Your task to perform on an android device: Open notification settings Image 0: 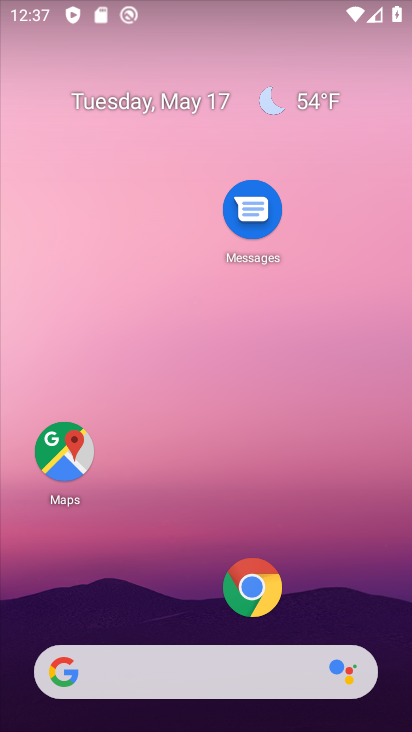
Step 0: drag from (172, 614) to (197, 88)
Your task to perform on an android device: Open notification settings Image 1: 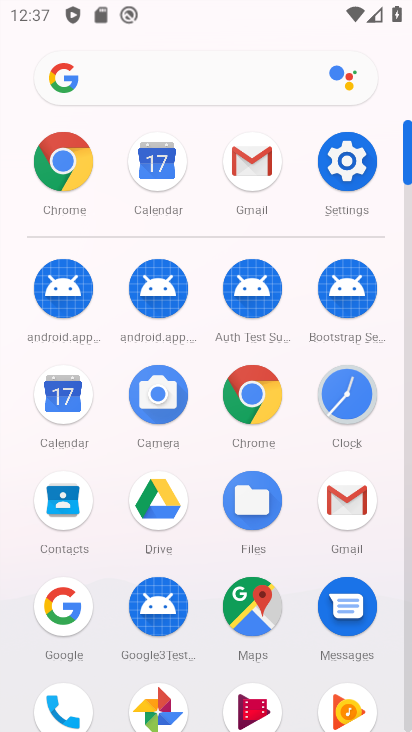
Step 1: click (338, 190)
Your task to perform on an android device: Open notification settings Image 2: 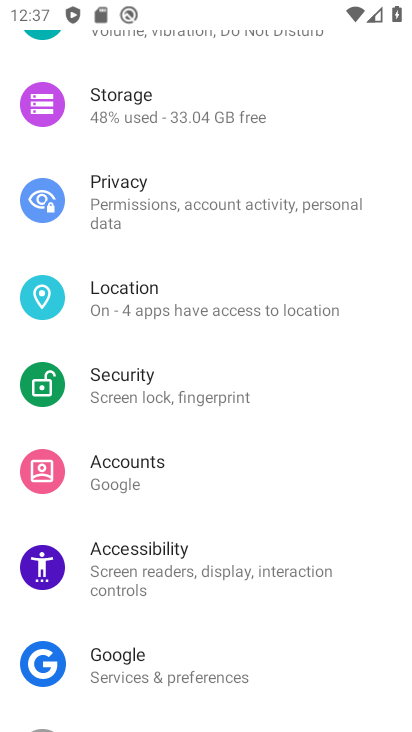
Step 2: drag from (209, 169) to (230, 637)
Your task to perform on an android device: Open notification settings Image 3: 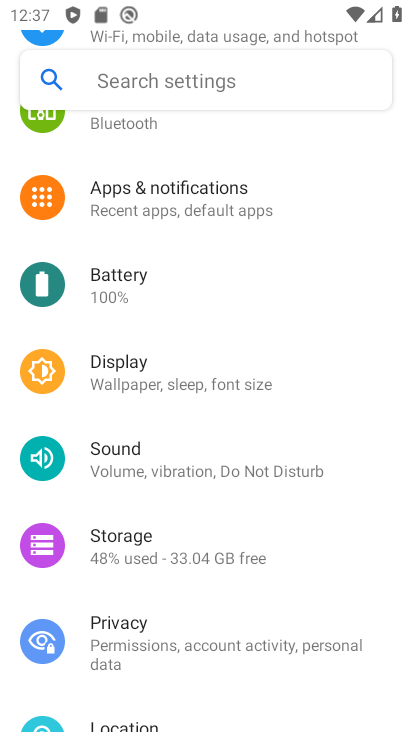
Step 3: click (187, 207)
Your task to perform on an android device: Open notification settings Image 4: 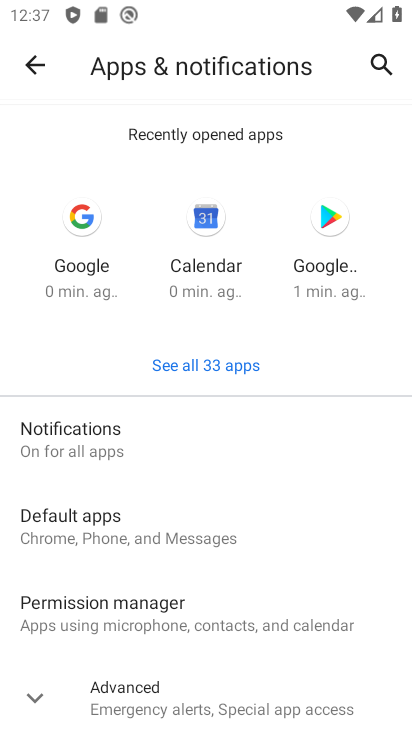
Step 4: click (104, 438)
Your task to perform on an android device: Open notification settings Image 5: 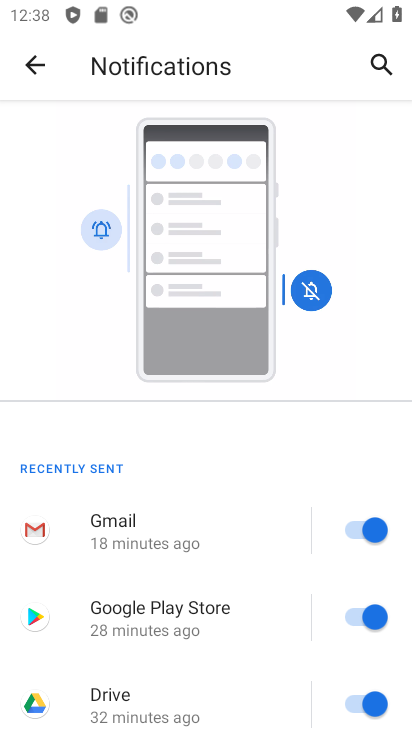
Step 5: task complete